Your task to perform on an android device: What's the weather going to be this weekend? Image 0: 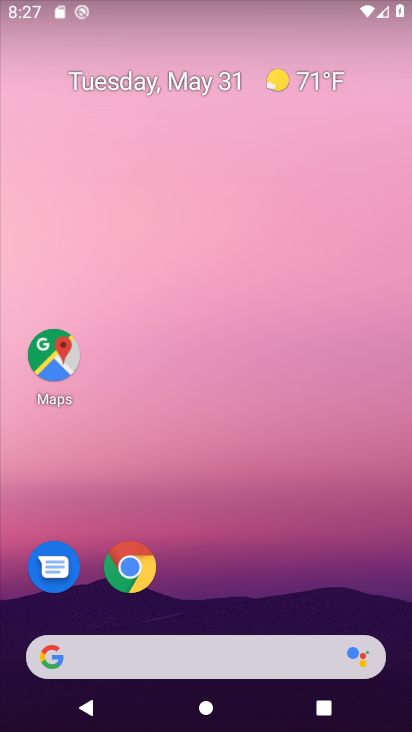
Step 0: drag from (270, 593) to (281, 138)
Your task to perform on an android device: What's the weather going to be this weekend? Image 1: 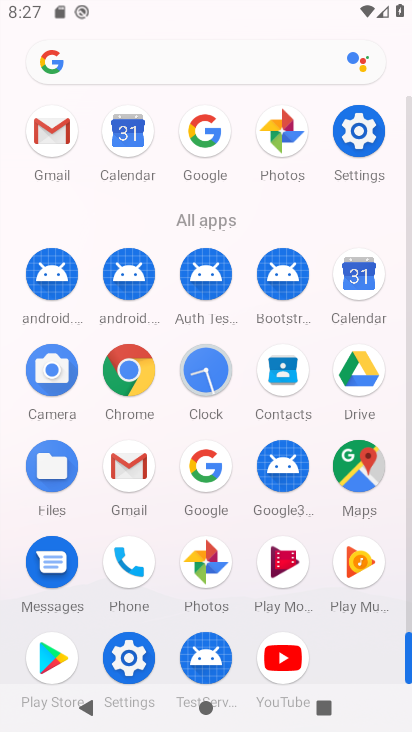
Step 1: click (206, 473)
Your task to perform on an android device: What's the weather going to be this weekend? Image 2: 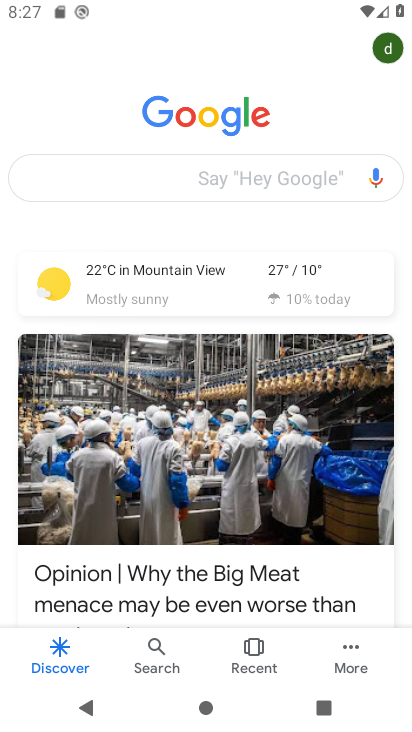
Step 2: drag from (137, 178) to (44, 178)
Your task to perform on an android device: What's the weather going to be this weekend? Image 3: 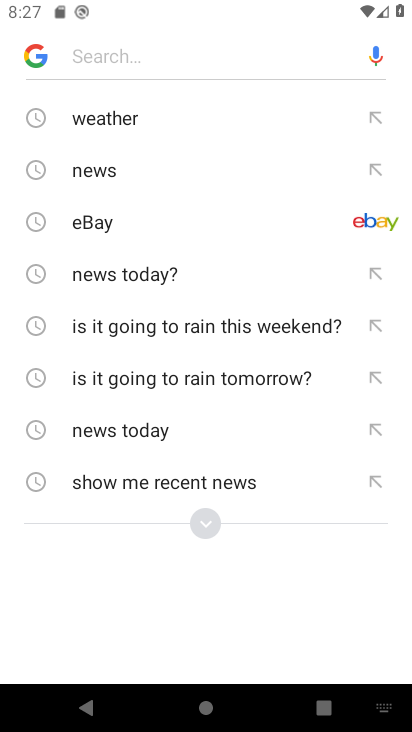
Step 3: click (205, 525)
Your task to perform on an android device: What's the weather going to be this weekend? Image 4: 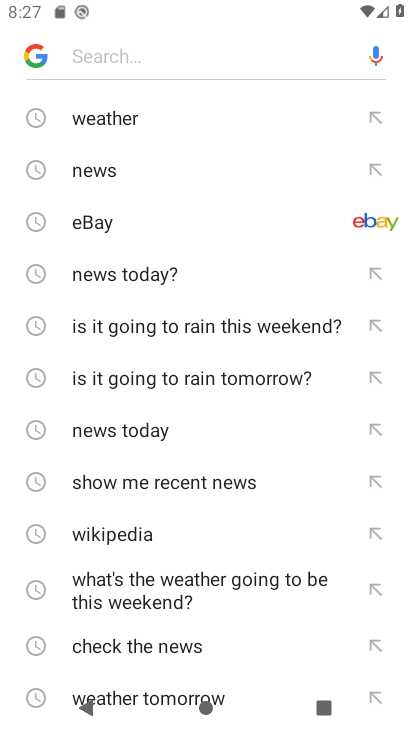
Step 4: drag from (149, 631) to (177, 343)
Your task to perform on an android device: What's the weather going to be this weekend? Image 5: 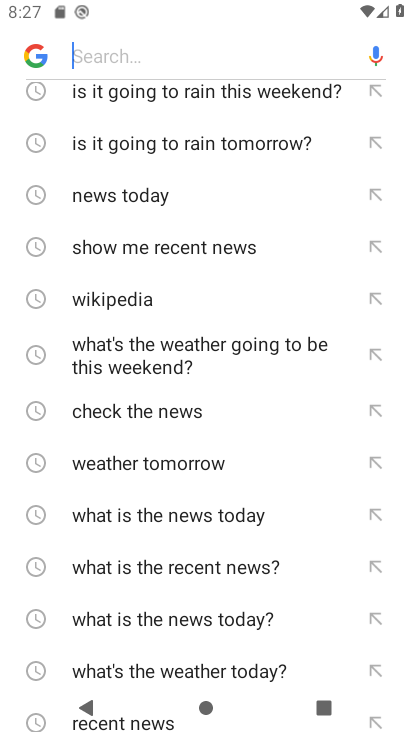
Step 5: click (157, 354)
Your task to perform on an android device: What's the weather going to be this weekend? Image 6: 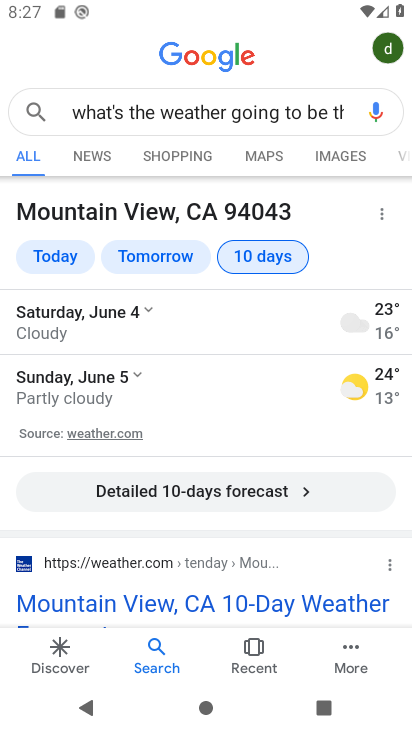
Step 6: click (200, 498)
Your task to perform on an android device: What's the weather going to be this weekend? Image 7: 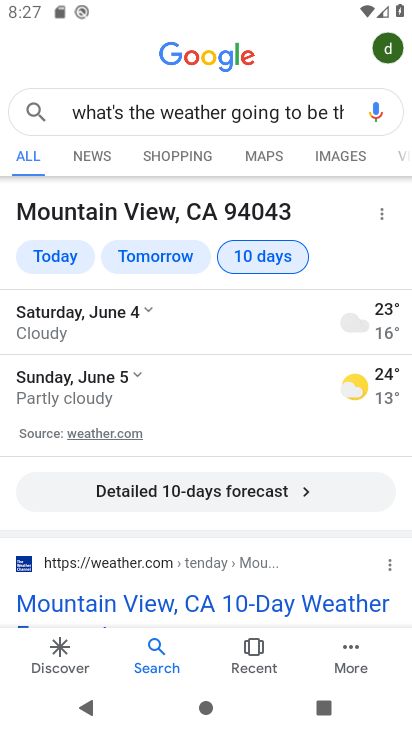
Step 7: click (262, 490)
Your task to perform on an android device: What's the weather going to be this weekend? Image 8: 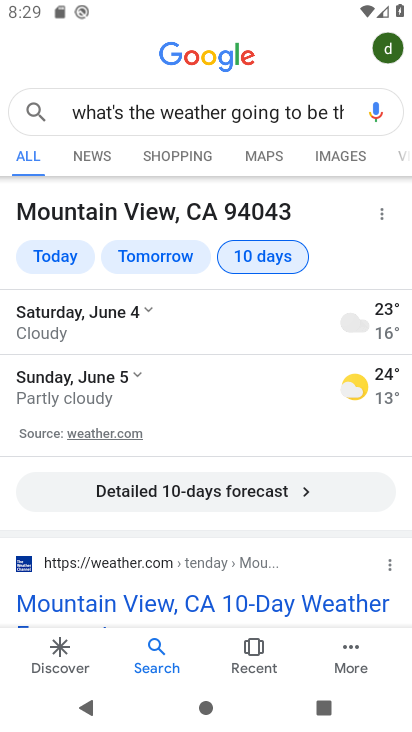
Step 8: task complete